Your task to perform on an android device: clear history in the chrome app Image 0: 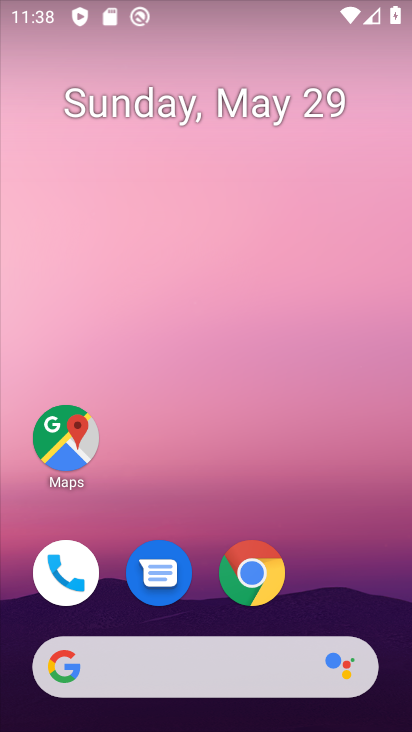
Step 0: click (245, 590)
Your task to perform on an android device: clear history in the chrome app Image 1: 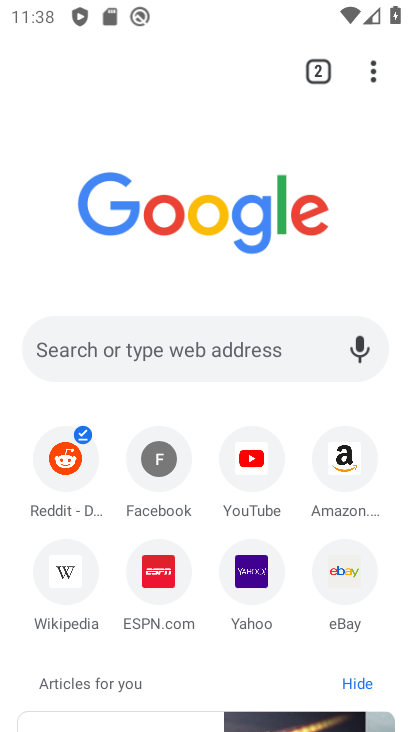
Step 1: drag from (374, 72) to (126, 485)
Your task to perform on an android device: clear history in the chrome app Image 2: 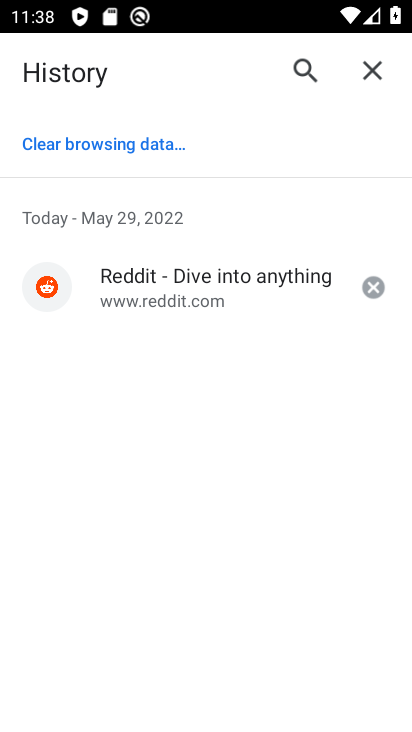
Step 2: click (137, 143)
Your task to perform on an android device: clear history in the chrome app Image 3: 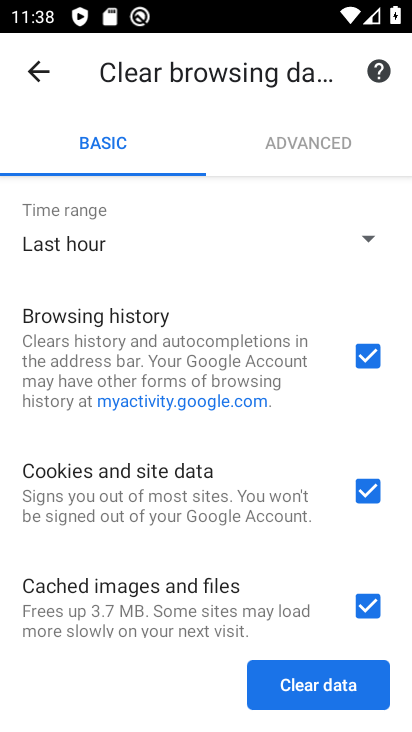
Step 3: click (366, 487)
Your task to perform on an android device: clear history in the chrome app Image 4: 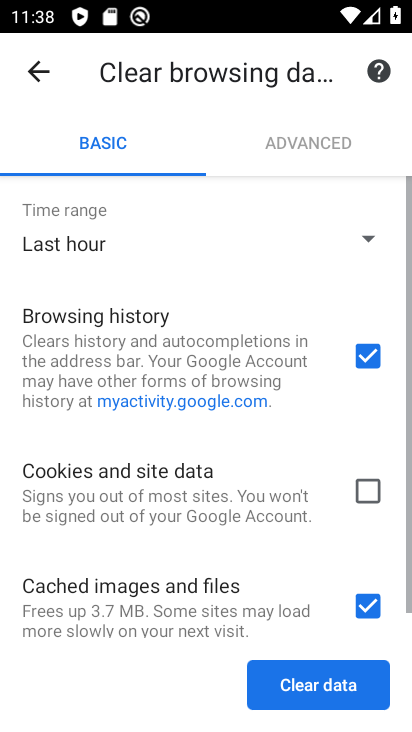
Step 4: click (363, 603)
Your task to perform on an android device: clear history in the chrome app Image 5: 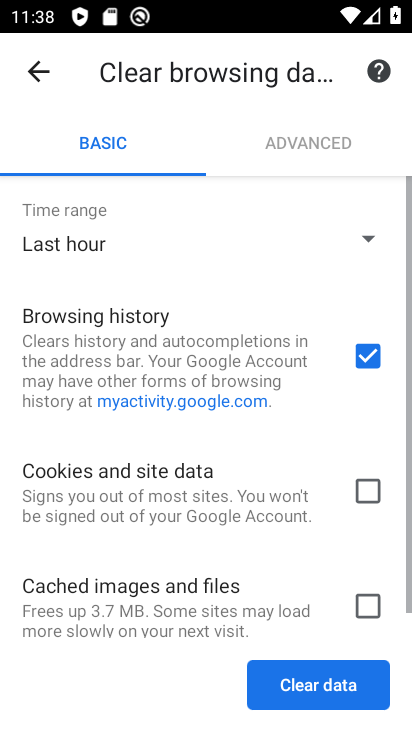
Step 5: click (324, 682)
Your task to perform on an android device: clear history in the chrome app Image 6: 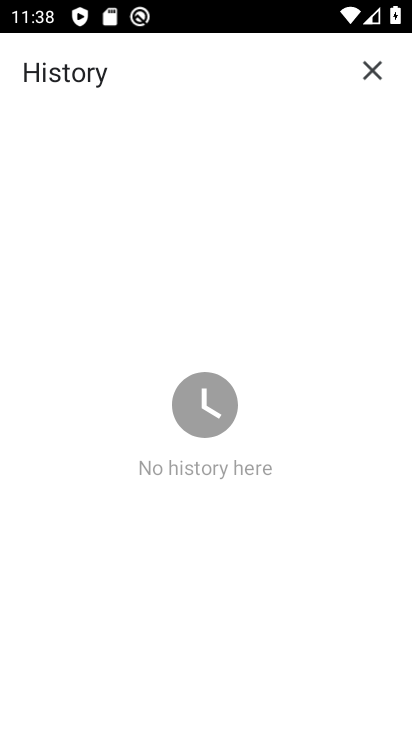
Step 6: task complete